Your task to perform on an android device: Go to ESPN.com Image 0: 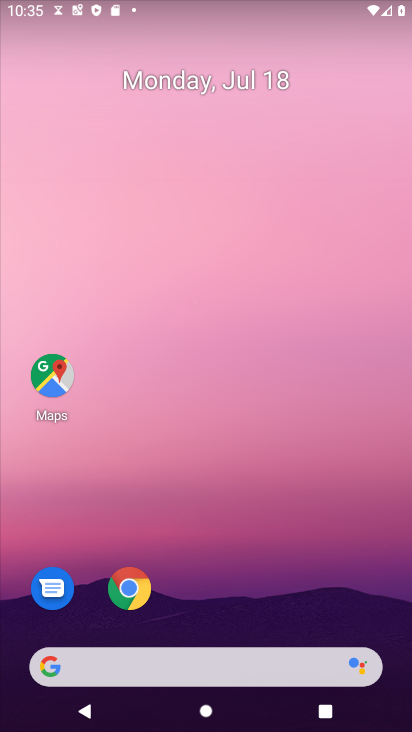
Step 0: click (135, 577)
Your task to perform on an android device: Go to ESPN.com Image 1: 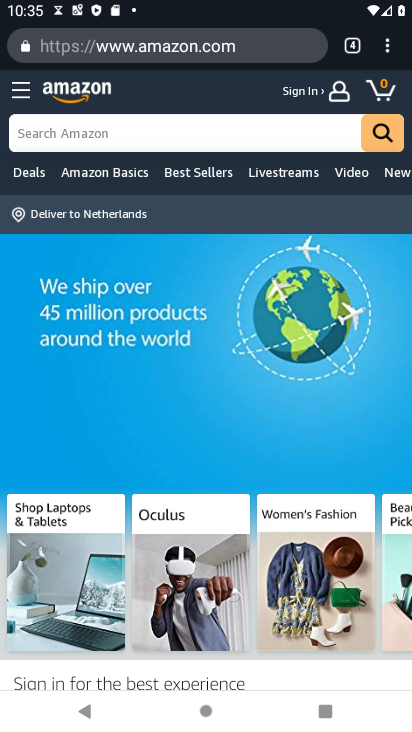
Step 1: click (387, 54)
Your task to perform on an android device: Go to ESPN.com Image 2: 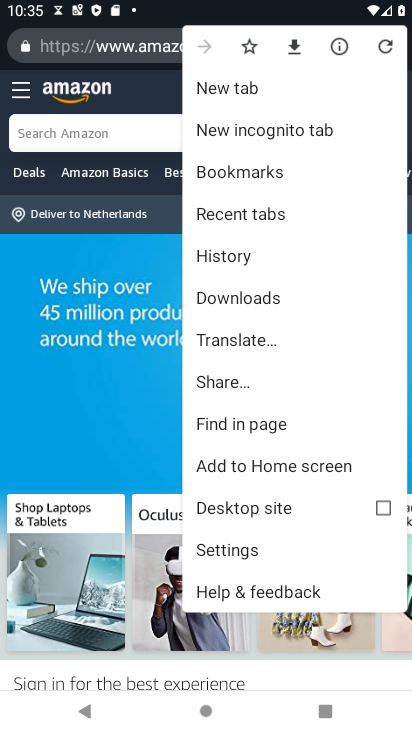
Step 2: click (236, 85)
Your task to perform on an android device: Go to ESPN.com Image 3: 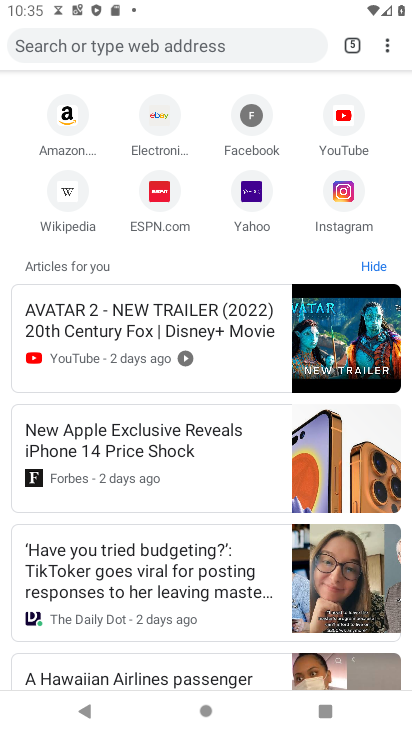
Step 3: click (153, 195)
Your task to perform on an android device: Go to ESPN.com Image 4: 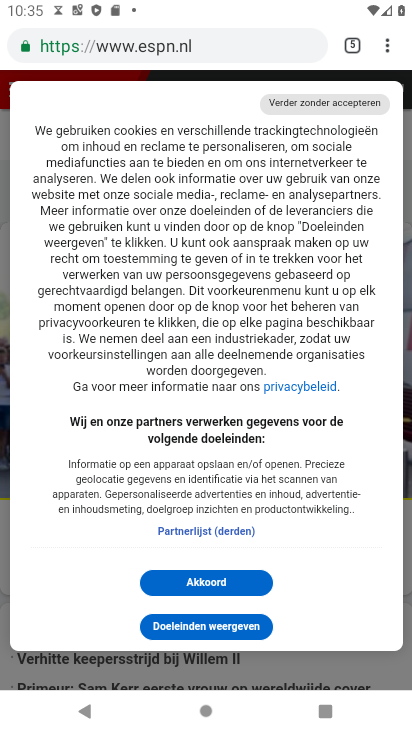
Step 4: task complete